Your task to perform on an android device: Open battery settings Image 0: 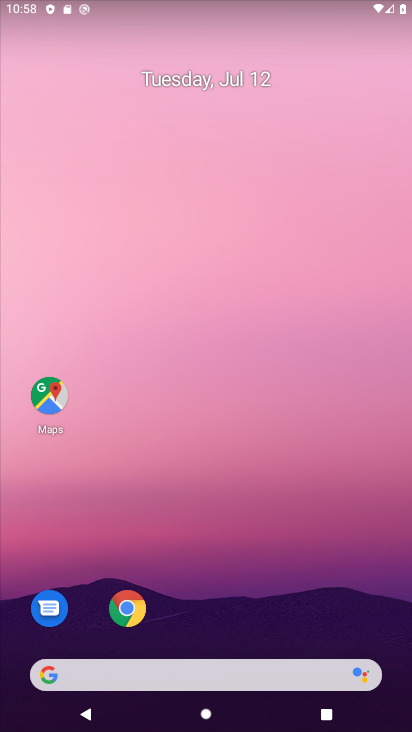
Step 0: drag from (232, 503) to (232, 112)
Your task to perform on an android device: Open battery settings Image 1: 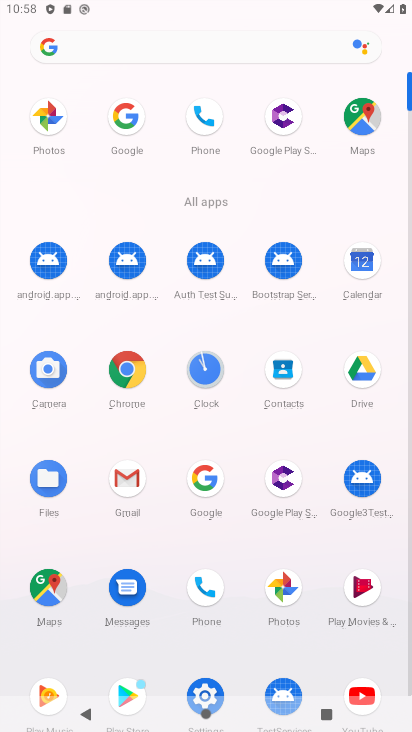
Step 1: click (206, 687)
Your task to perform on an android device: Open battery settings Image 2: 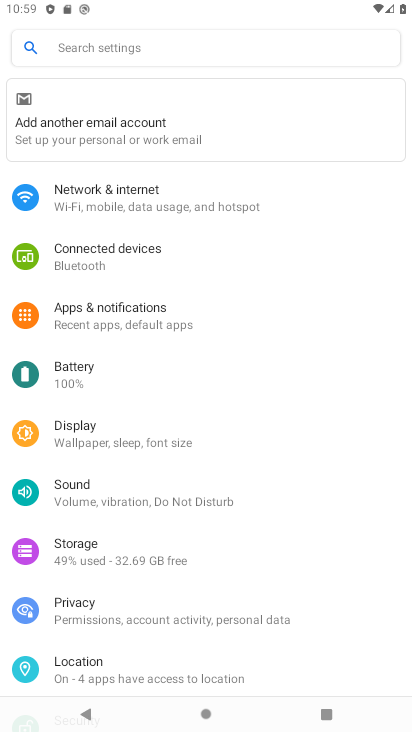
Step 2: click (72, 363)
Your task to perform on an android device: Open battery settings Image 3: 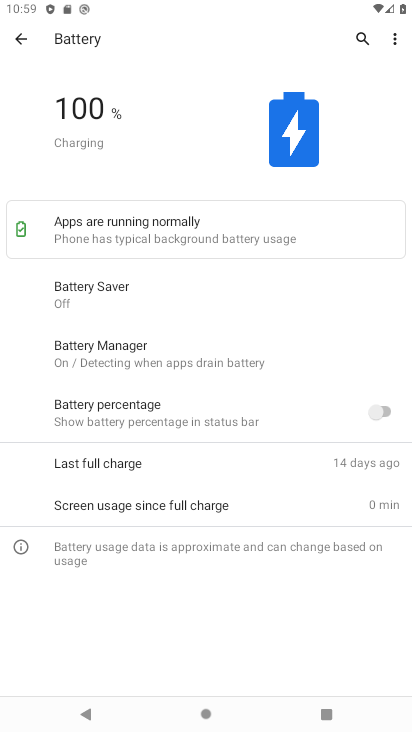
Step 3: task complete